Your task to perform on an android device: open app "Adobe Express: Graphic Design" Image 0: 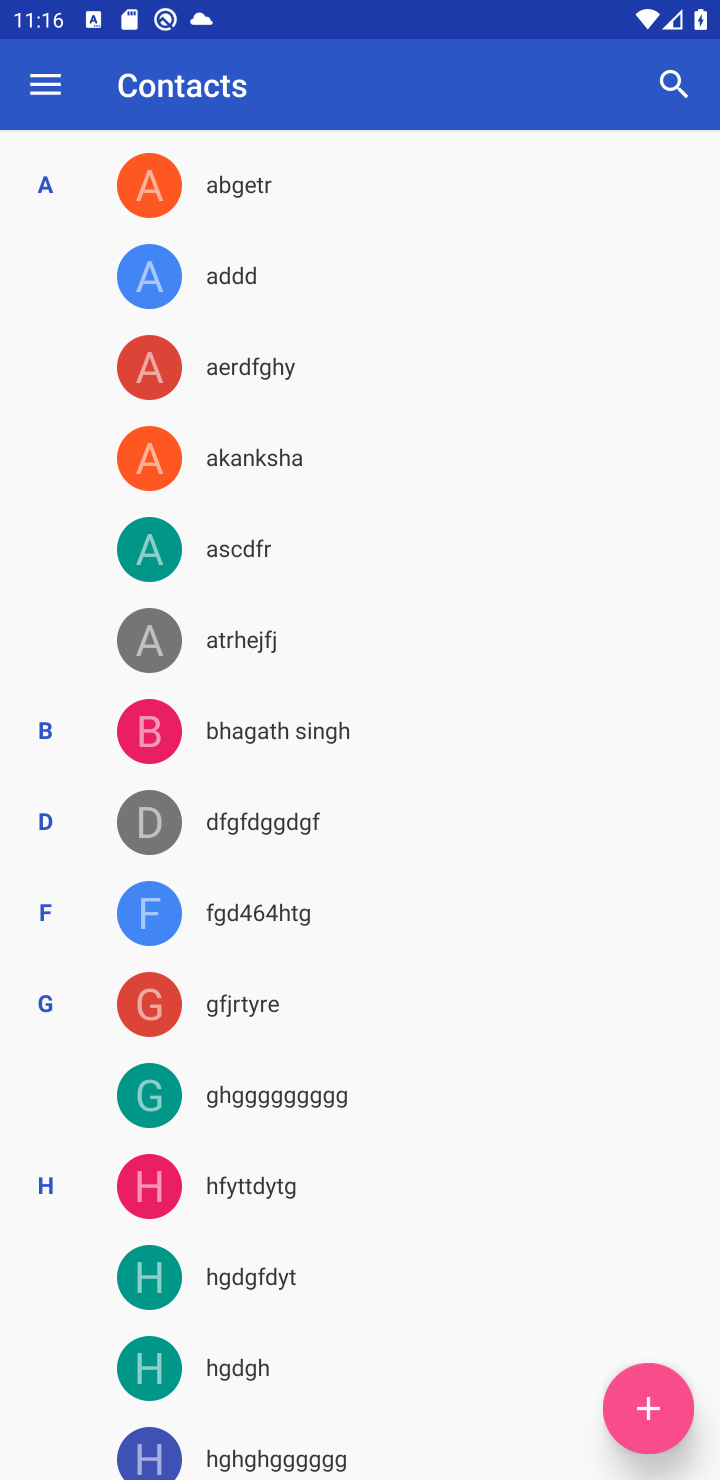
Step 0: press home button
Your task to perform on an android device: open app "Adobe Express: Graphic Design" Image 1: 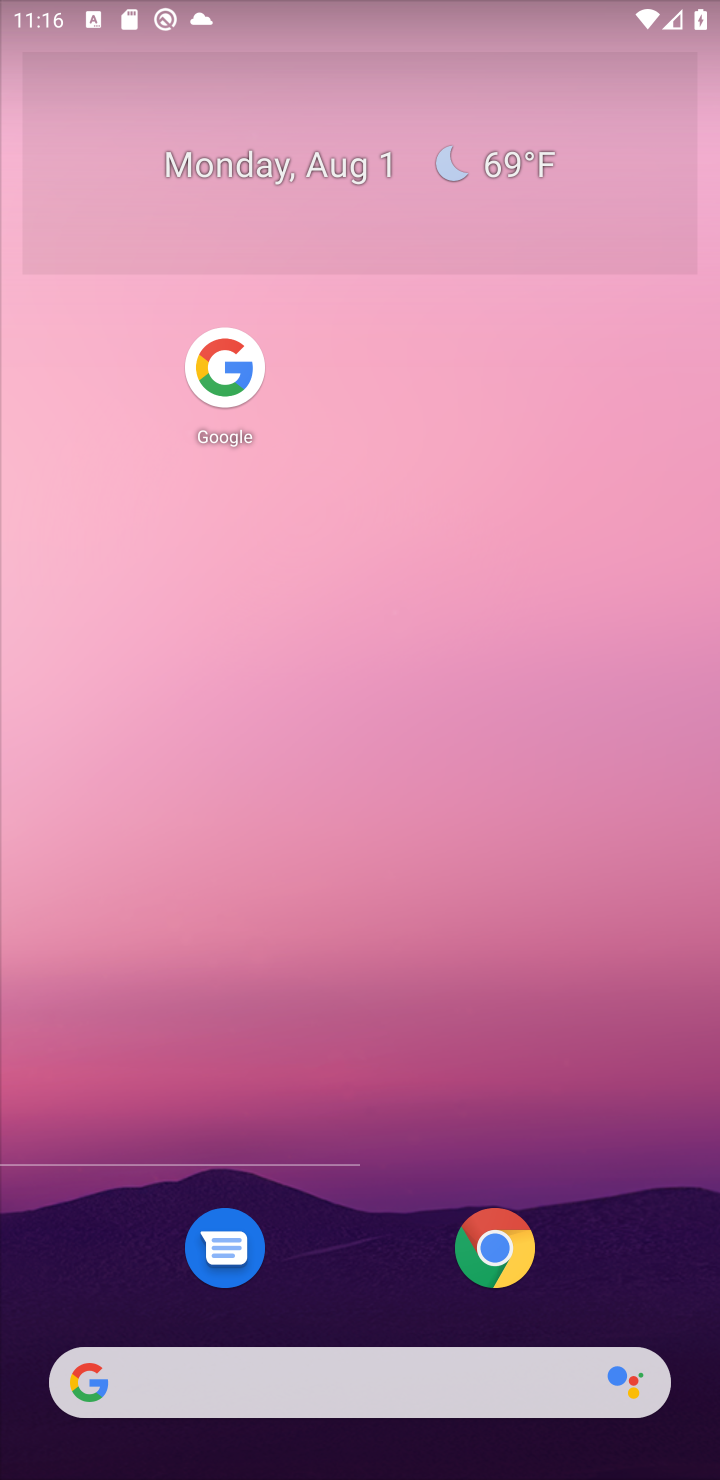
Step 1: drag from (426, 902) to (510, 201)
Your task to perform on an android device: open app "Adobe Express: Graphic Design" Image 2: 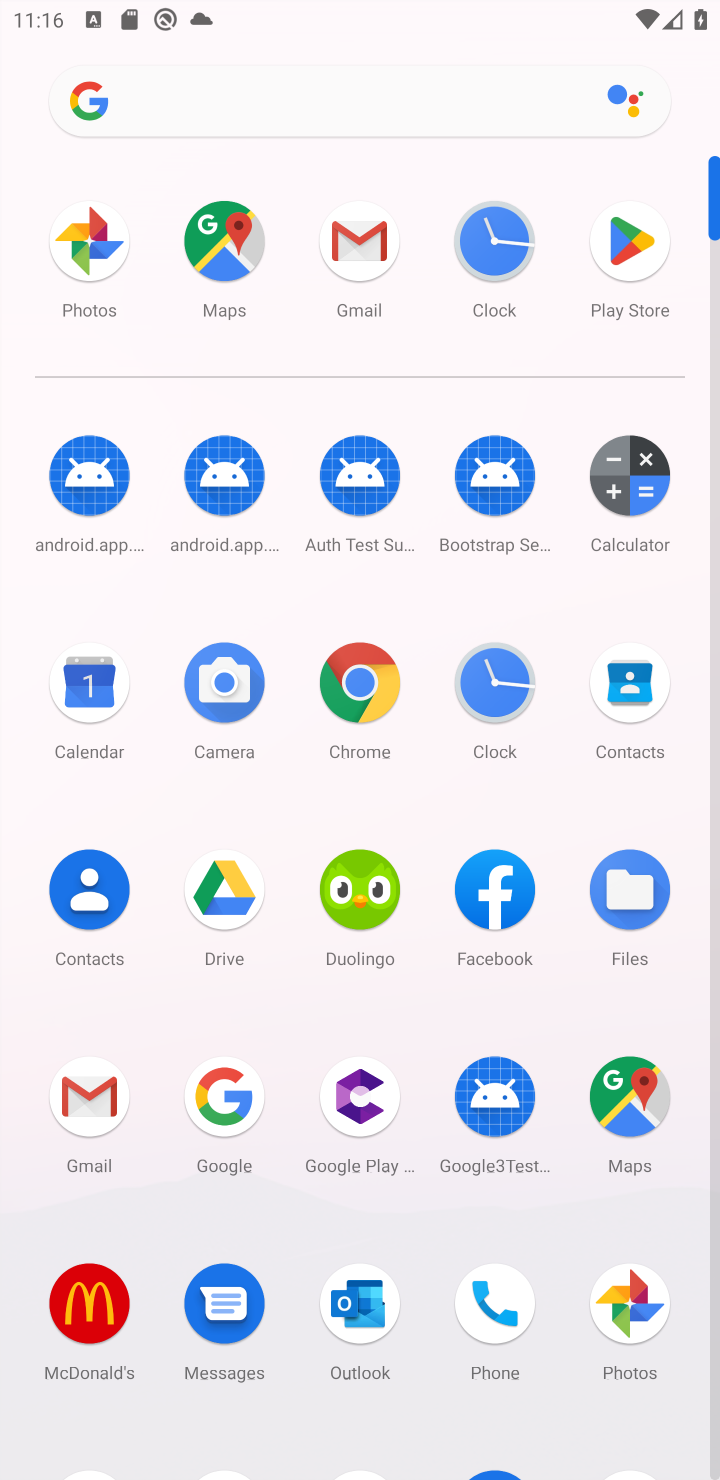
Step 2: drag from (290, 1208) to (390, 395)
Your task to perform on an android device: open app "Adobe Express: Graphic Design" Image 3: 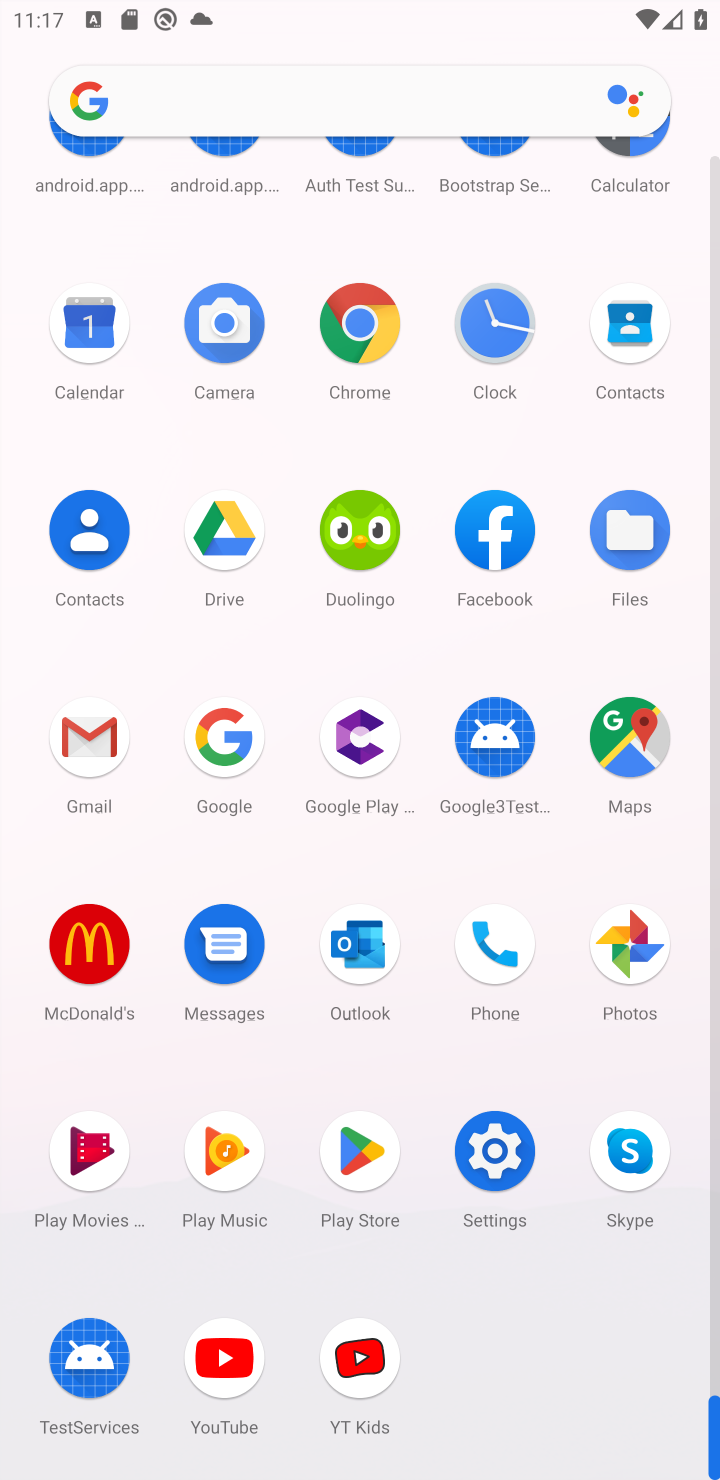
Step 3: click (359, 1153)
Your task to perform on an android device: open app "Adobe Express: Graphic Design" Image 4: 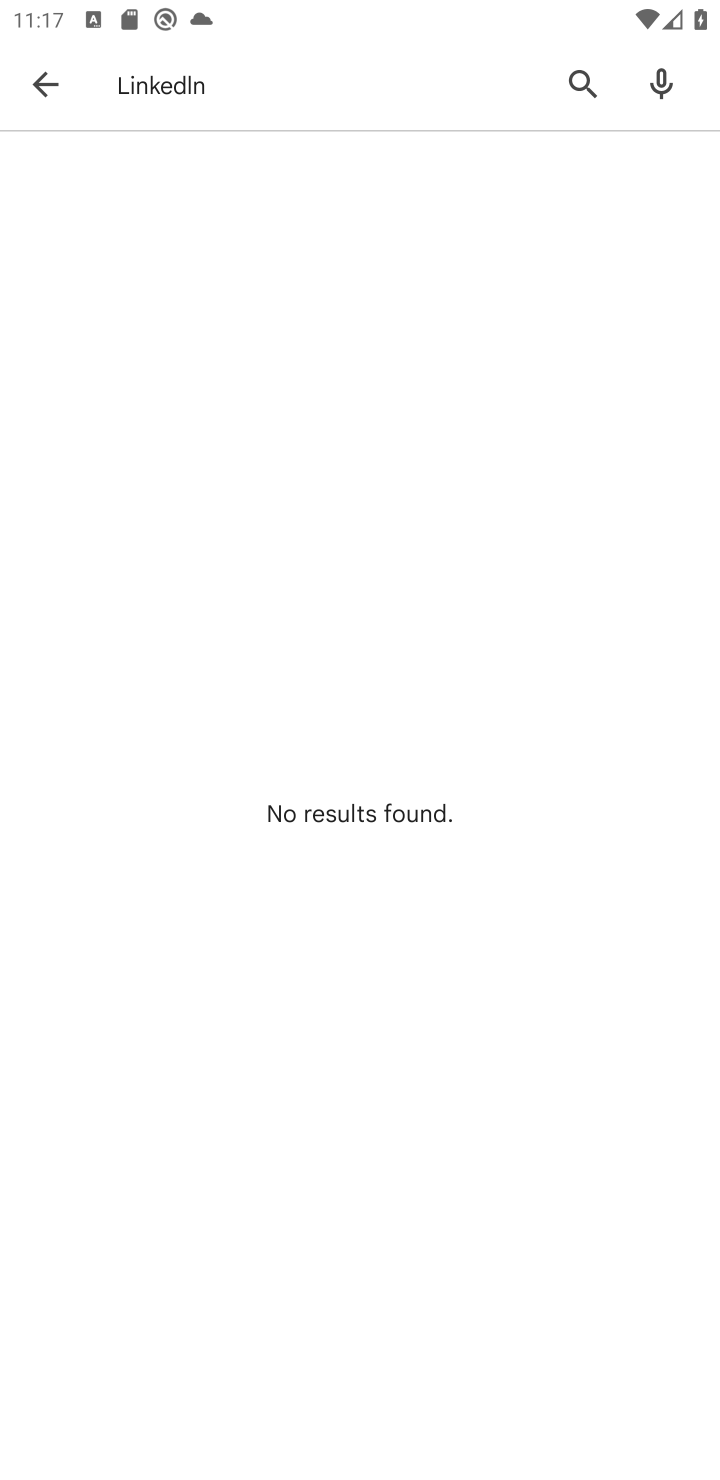
Step 4: click (492, 84)
Your task to perform on an android device: open app "Adobe Express: Graphic Design" Image 5: 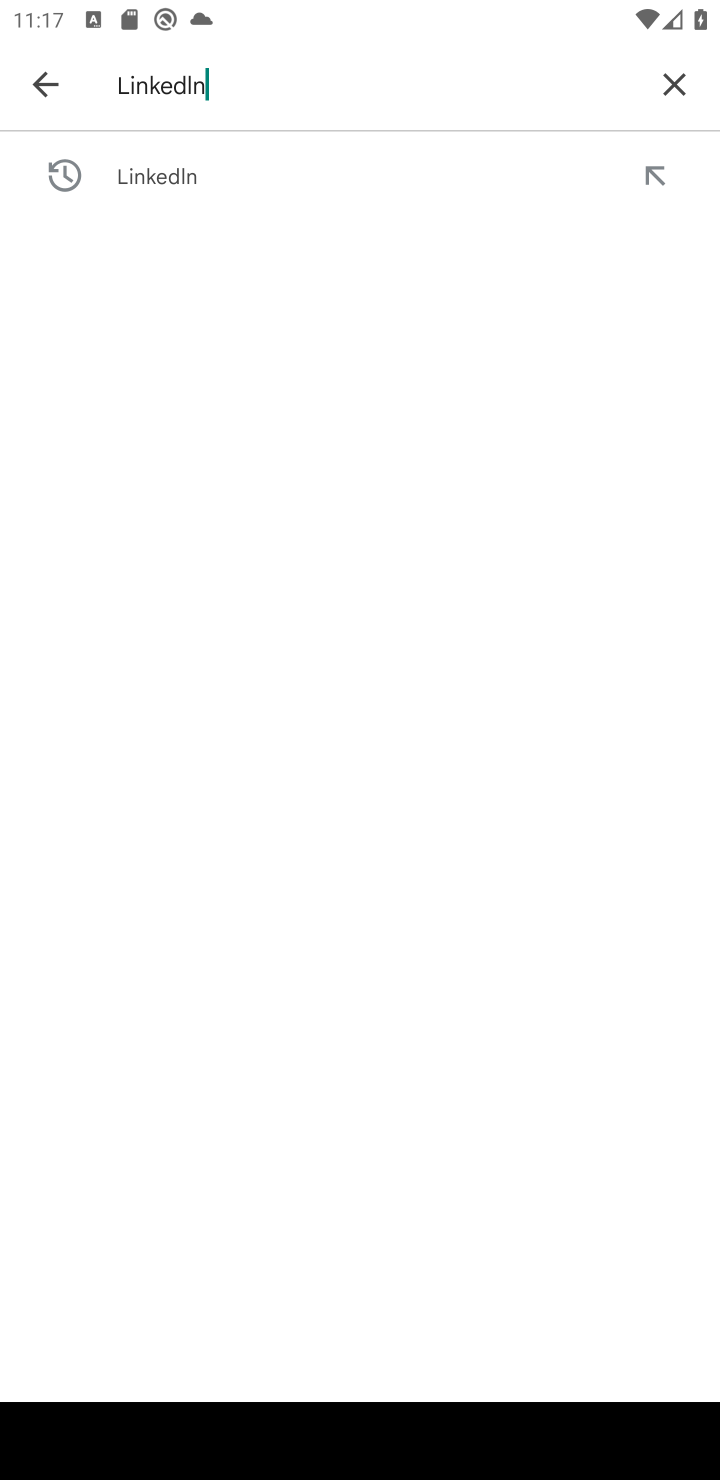
Step 5: click (676, 91)
Your task to perform on an android device: open app "Adobe Express: Graphic Design" Image 6: 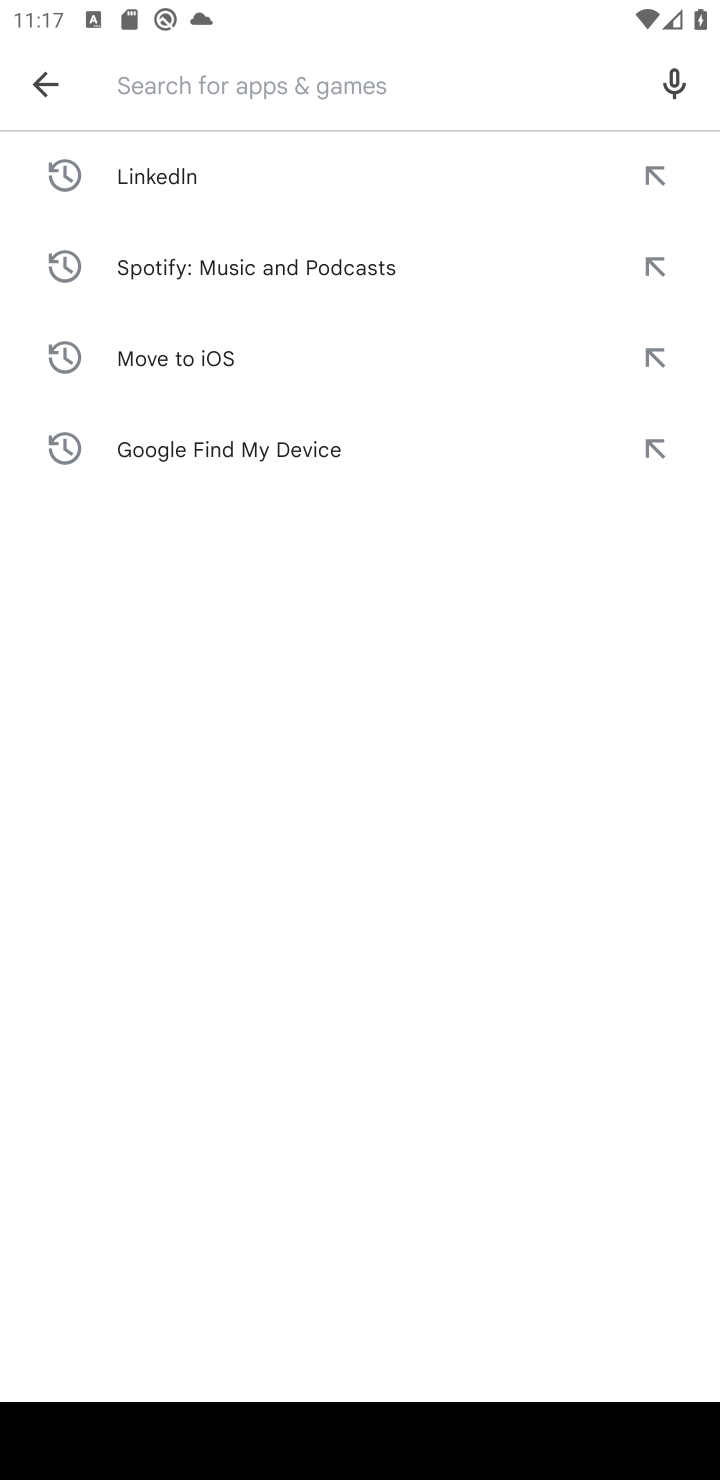
Step 6: type "Adobe Express: Graphic Design"
Your task to perform on an android device: open app "Adobe Express: Graphic Design" Image 7: 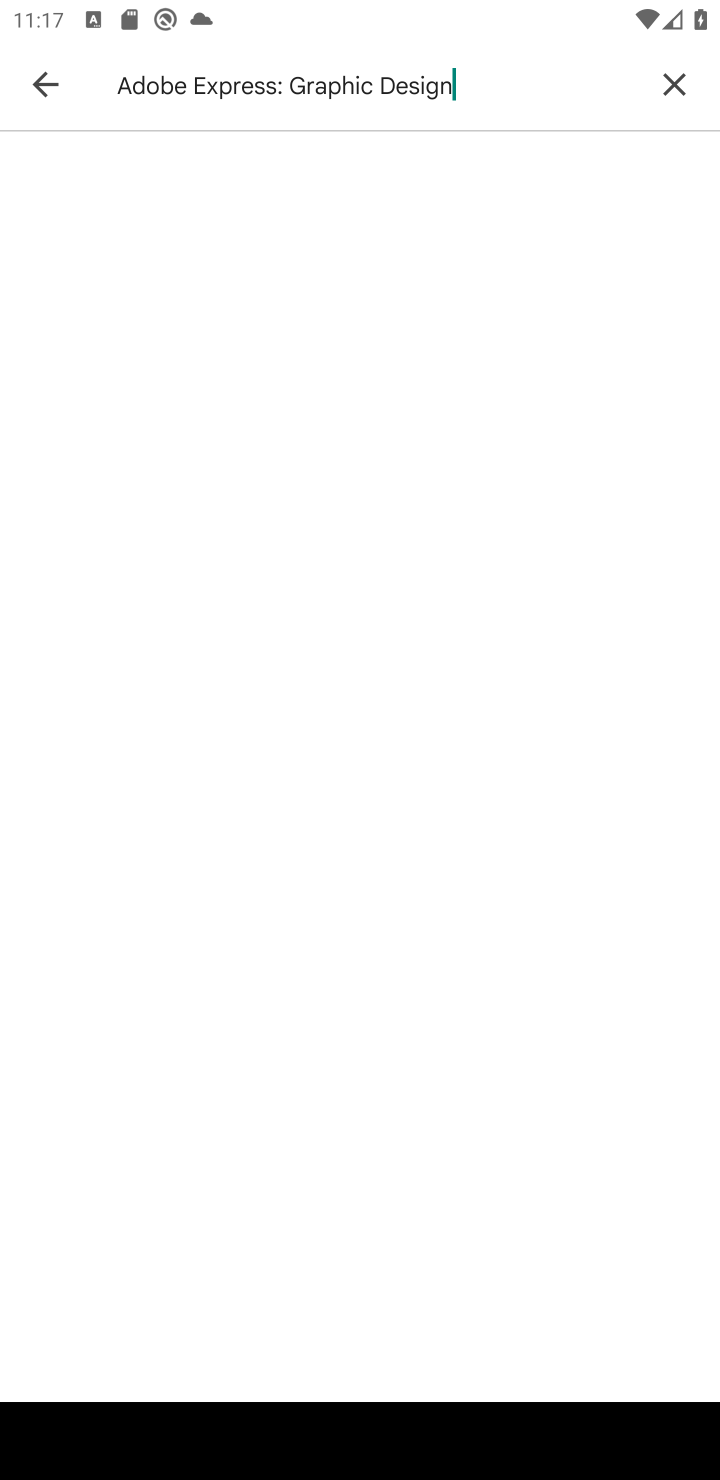
Step 7: press enter
Your task to perform on an android device: open app "Adobe Express: Graphic Design" Image 8: 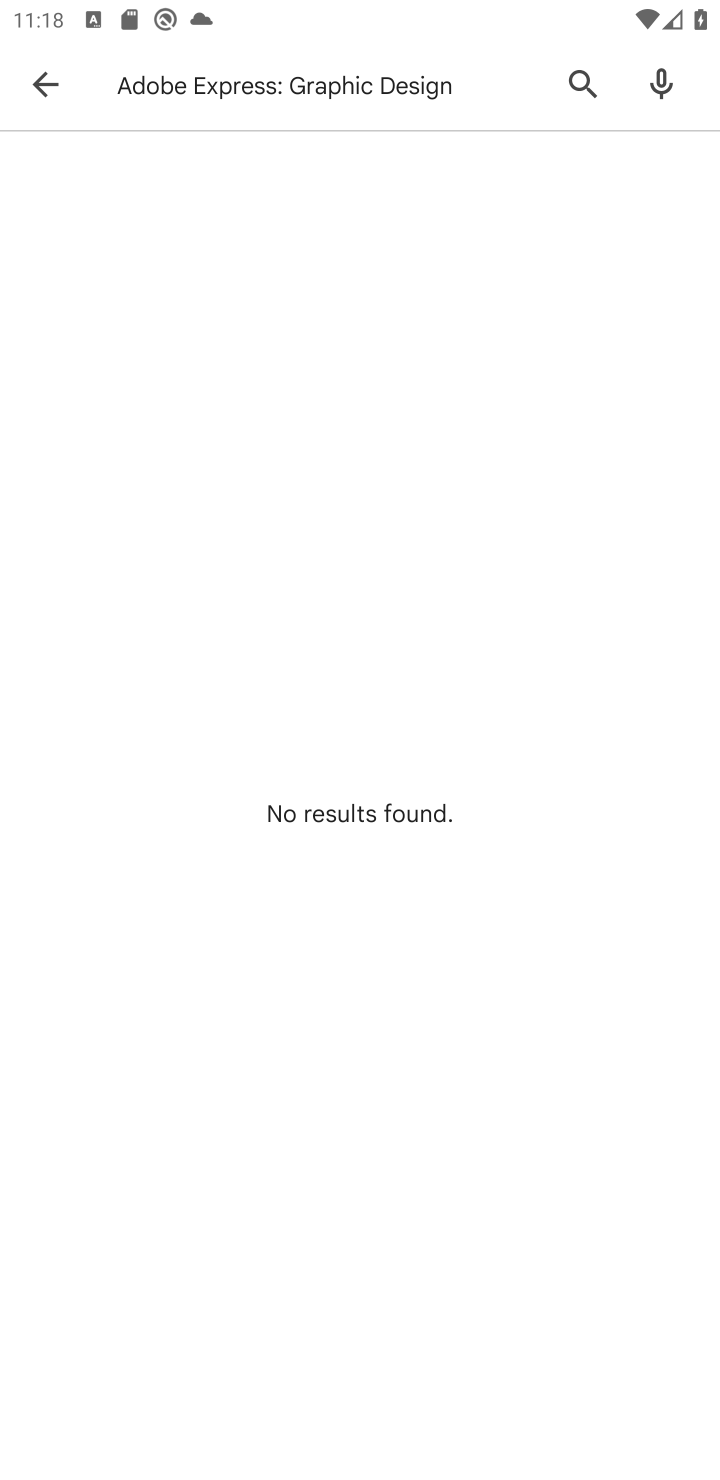
Step 8: task complete